Your task to perform on an android device: Open Chrome and go to the settings page Image 0: 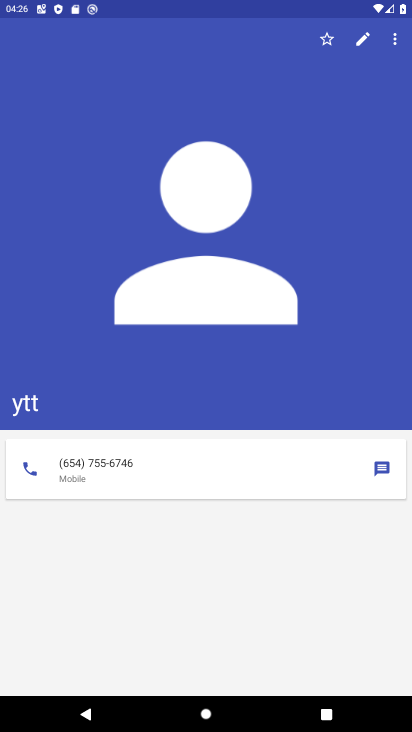
Step 0: press home button
Your task to perform on an android device: Open Chrome and go to the settings page Image 1: 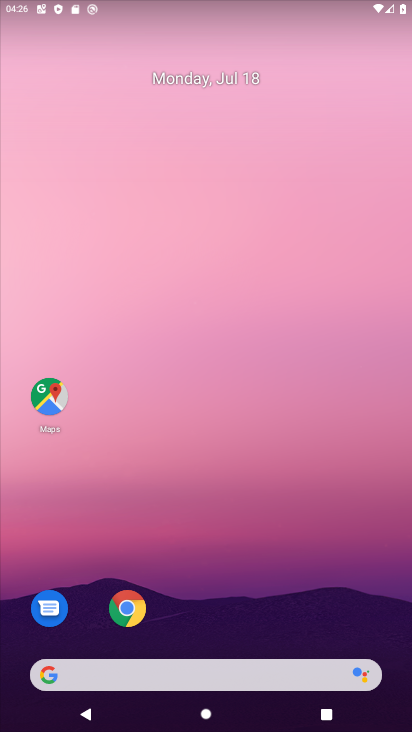
Step 1: click (133, 602)
Your task to perform on an android device: Open Chrome and go to the settings page Image 2: 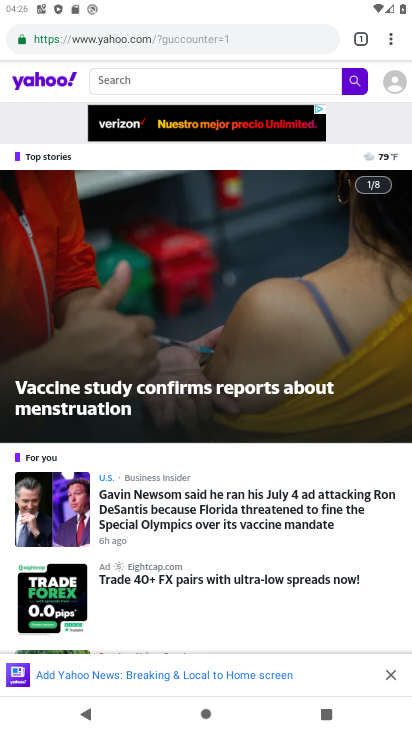
Step 2: click (394, 36)
Your task to perform on an android device: Open Chrome and go to the settings page Image 3: 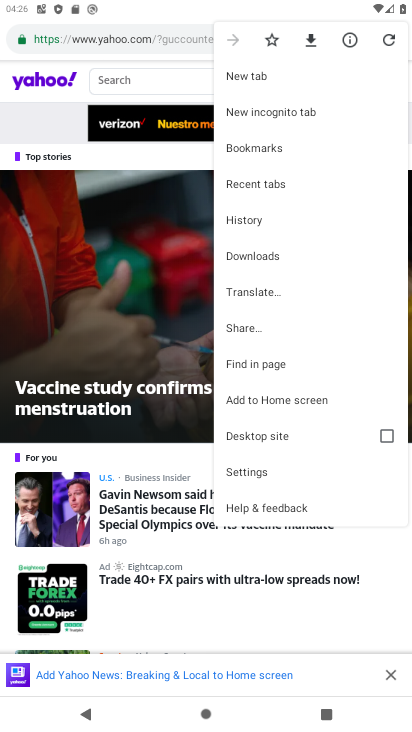
Step 3: click (281, 461)
Your task to perform on an android device: Open Chrome and go to the settings page Image 4: 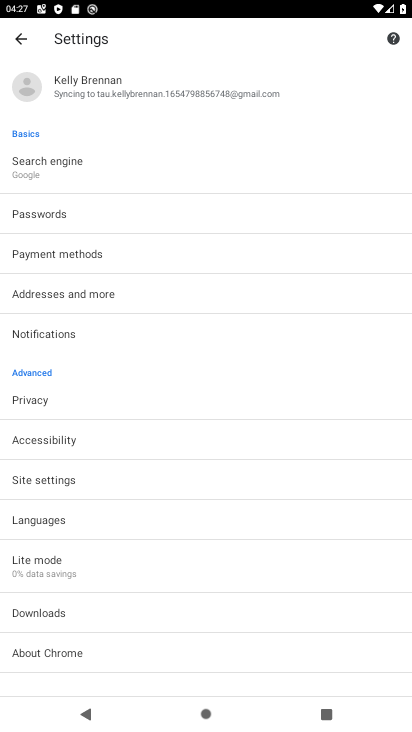
Step 4: task complete